Your task to perform on an android device: Add logitech g502 to the cart on costco.com Image 0: 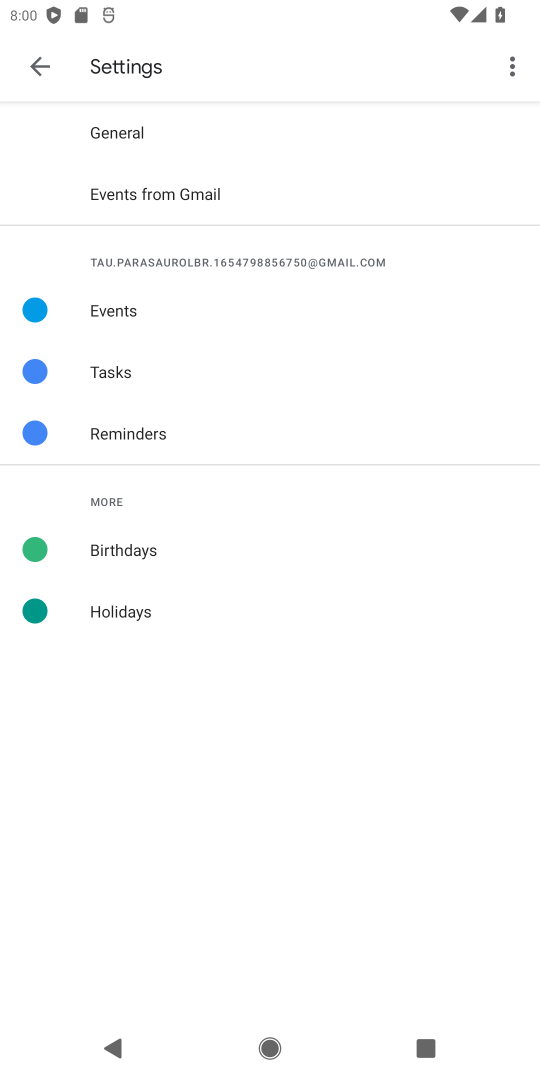
Step 0: press home button
Your task to perform on an android device: Add logitech g502 to the cart on costco.com Image 1: 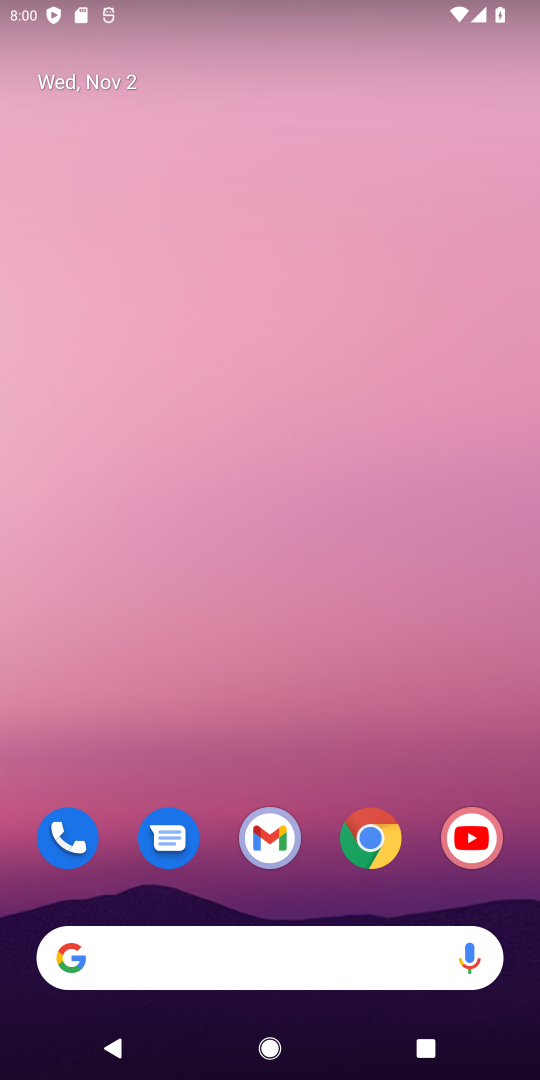
Step 1: click (388, 851)
Your task to perform on an android device: Add logitech g502 to the cart on costco.com Image 2: 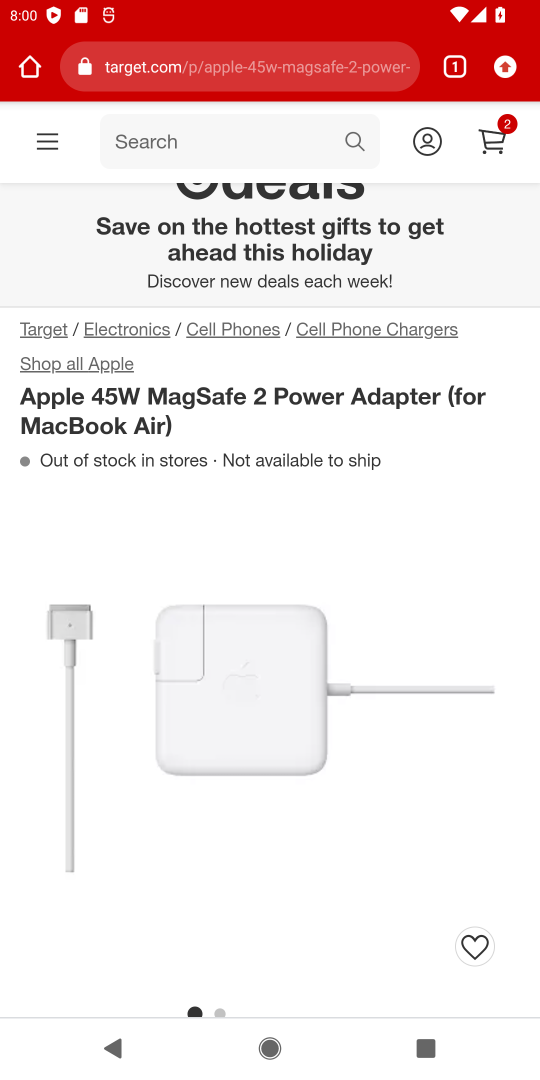
Step 2: click (300, 70)
Your task to perform on an android device: Add logitech g502 to the cart on costco.com Image 3: 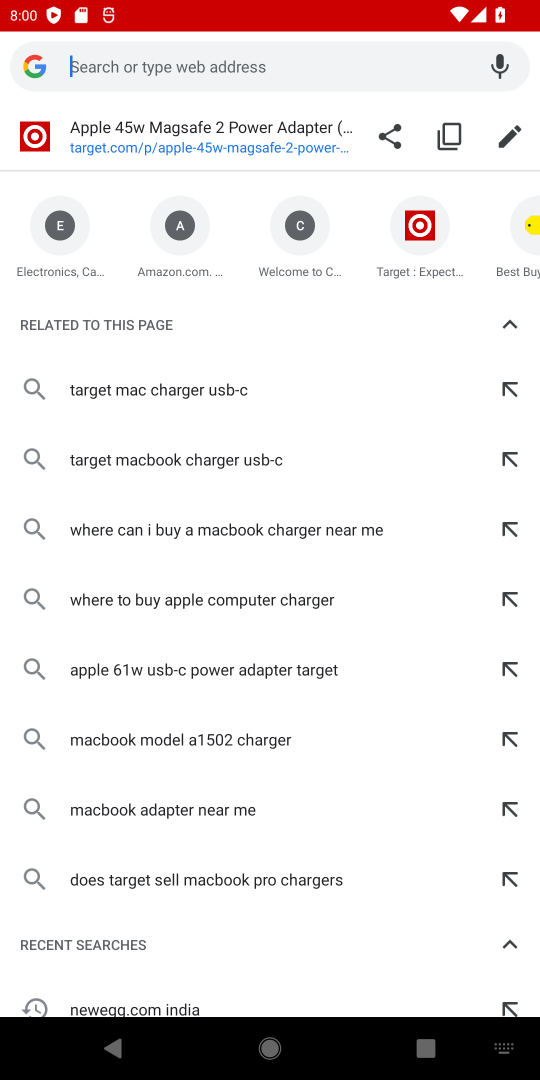
Step 3: type "costco.com"
Your task to perform on an android device: Add logitech g502 to the cart on costco.com Image 4: 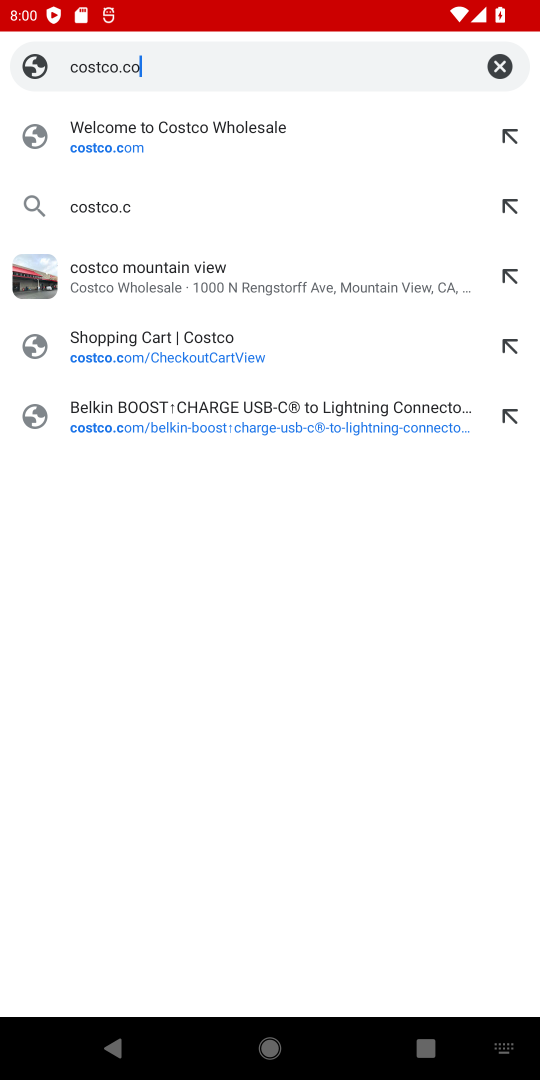
Step 4: type ""
Your task to perform on an android device: Add logitech g502 to the cart on costco.com Image 5: 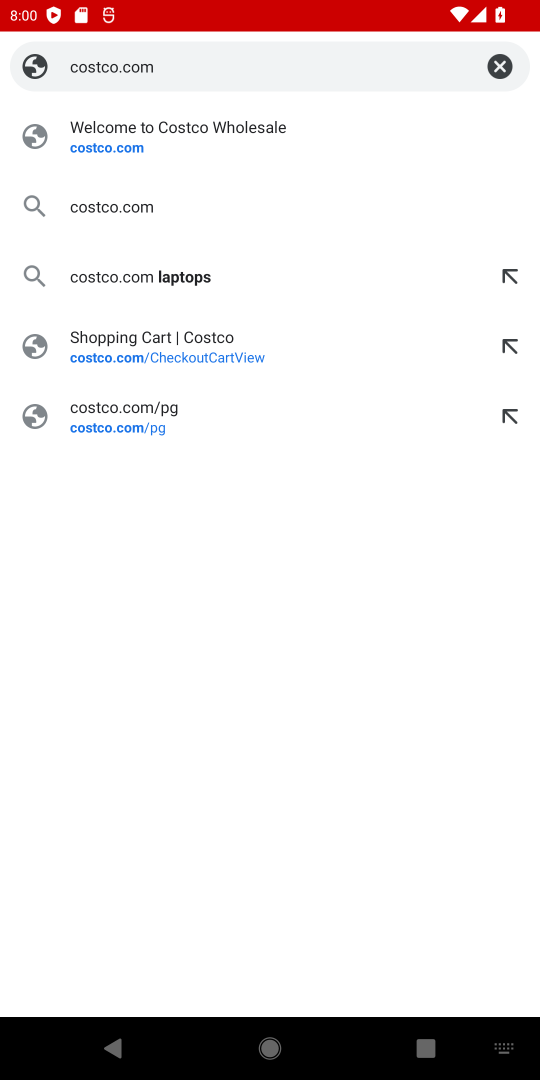
Step 5: press enter
Your task to perform on an android device: Add logitech g502 to the cart on costco.com Image 6: 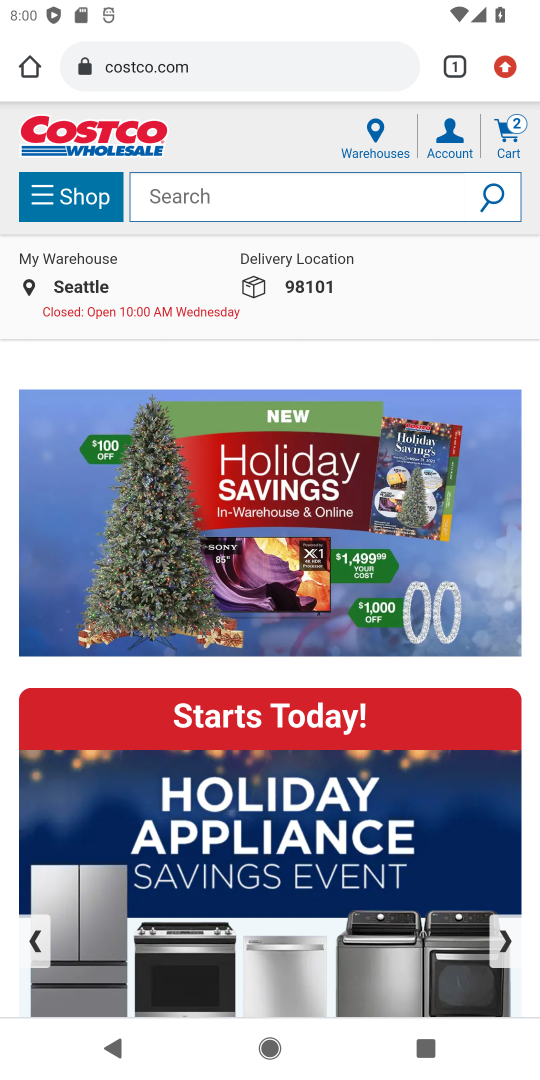
Step 6: click (365, 219)
Your task to perform on an android device: Add logitech g502 to the cart on costco.com Image 7: 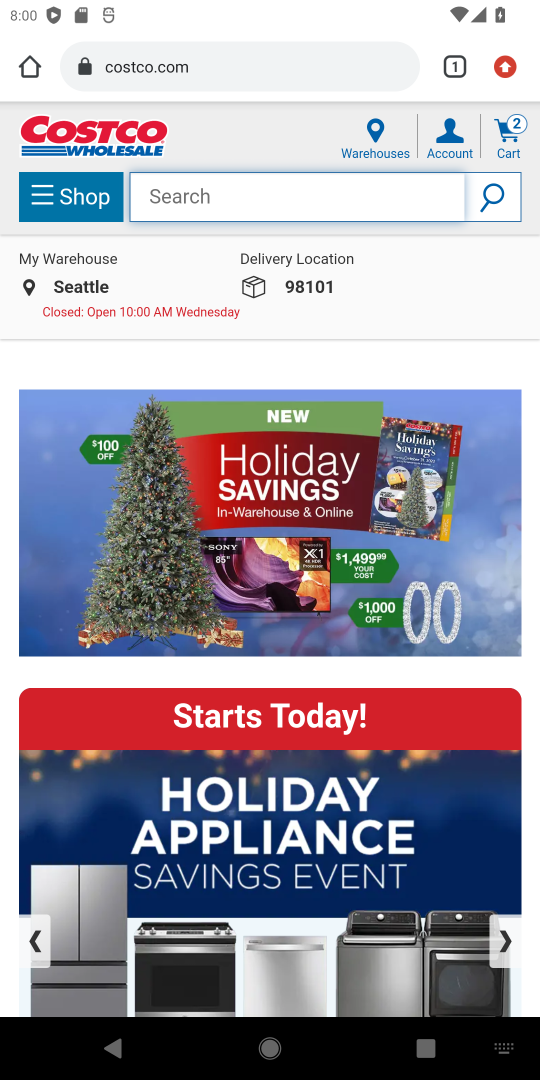
Step 7: type "logitech g502"
Your task to perform on an android device: Add logitech g502 to the cart on costco.com Image 8: 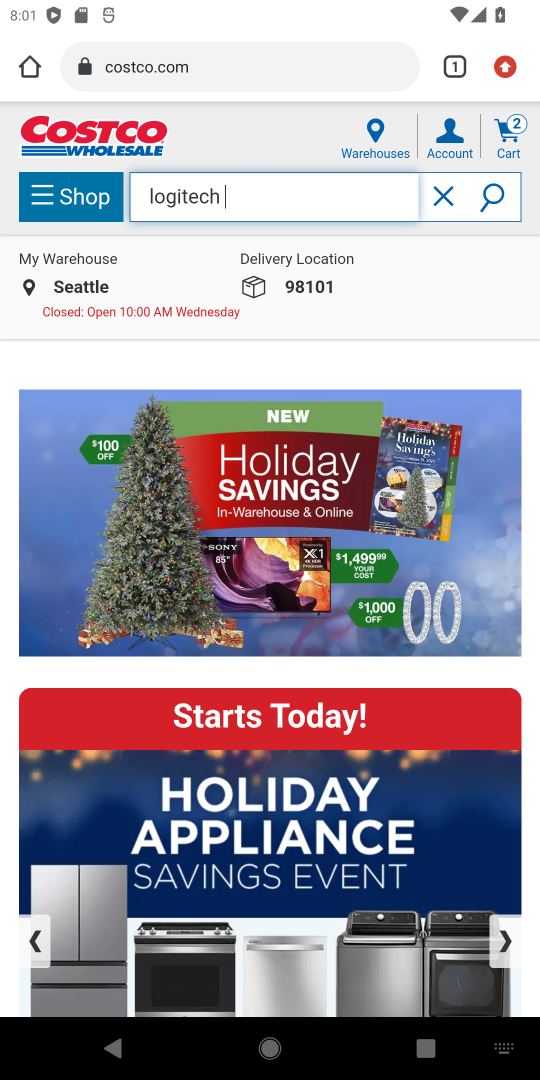
Step 8: type ""
Your task to perform on an android device: Add logitech g502 to the cart on costco.com Image 9: 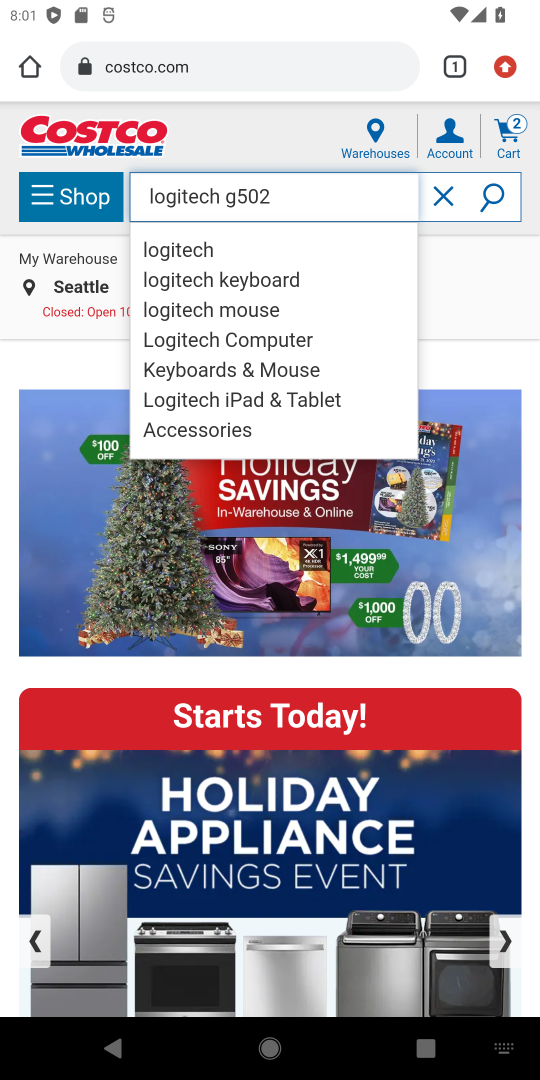
Step 9: press enter
Your task to perform on an android device: Add logitech g502 to the cart on costco.com Image 10: 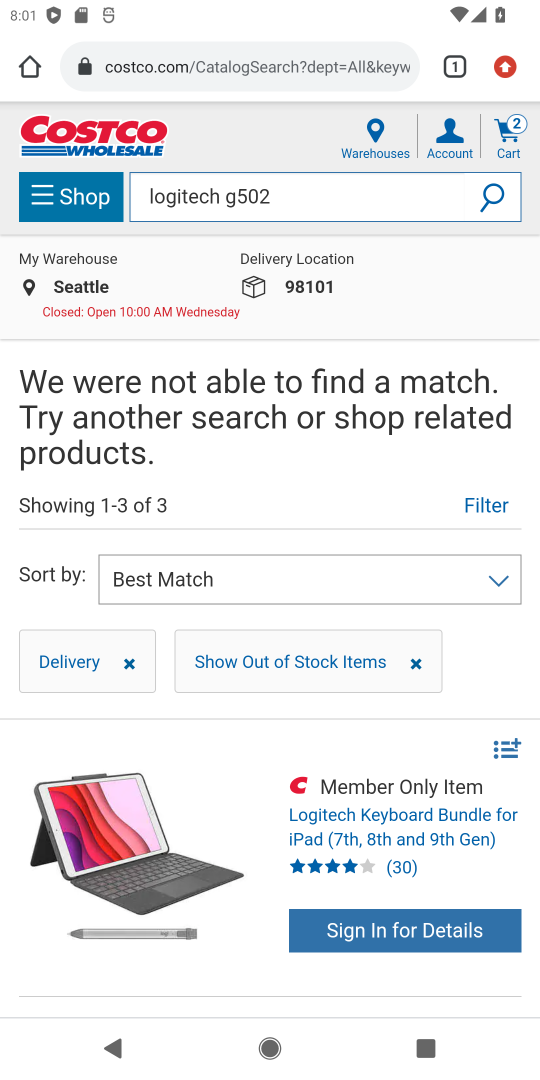
Step 10: task complete